Your task to perform on an android device: Search for pizza restaurants on Maps Image 0: 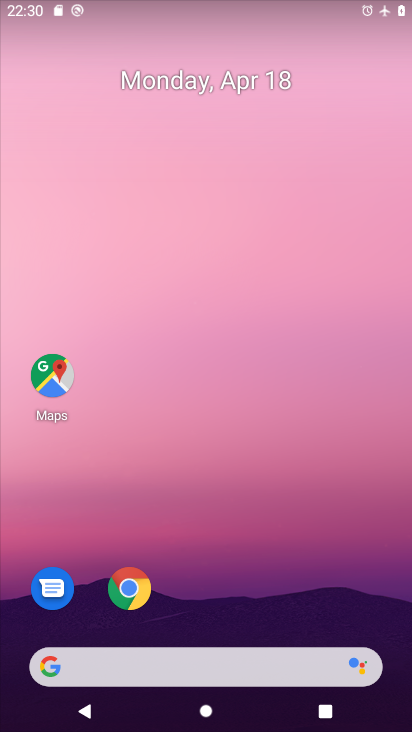
Step 0: drag from (219, 501) to (266, 51)
Your task to perform on an android device: Search for pizza restaurants on Maps Image 1: 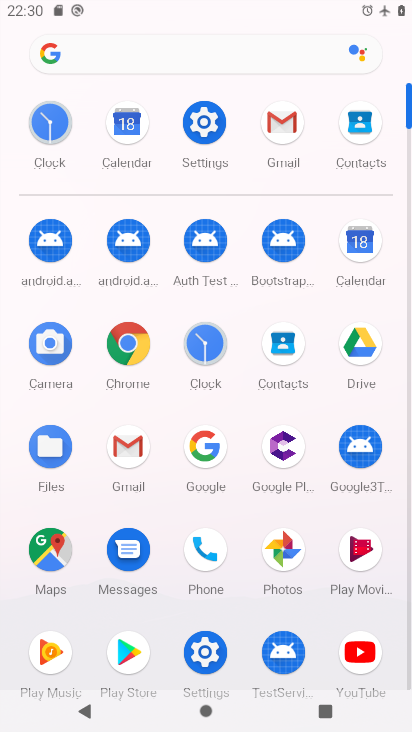
Step 1: click (55, 549)
Your task to perform on an android device: Search for pizza restaurants on Maps Image 2: 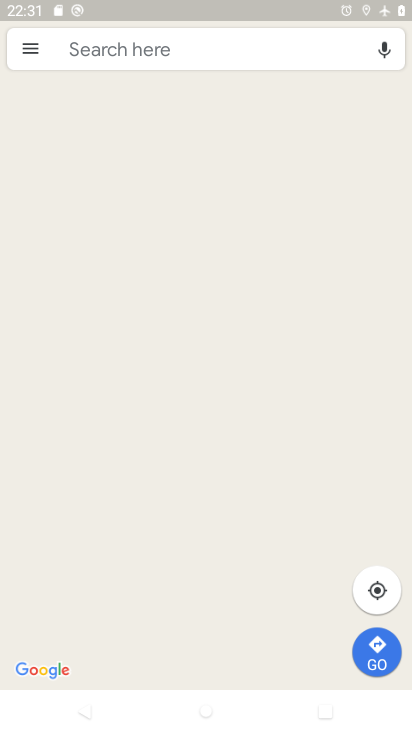
Step 2: click (248, 62)
Your task to perform on an android device: Search for pizza restaurants on Maps Image 3: 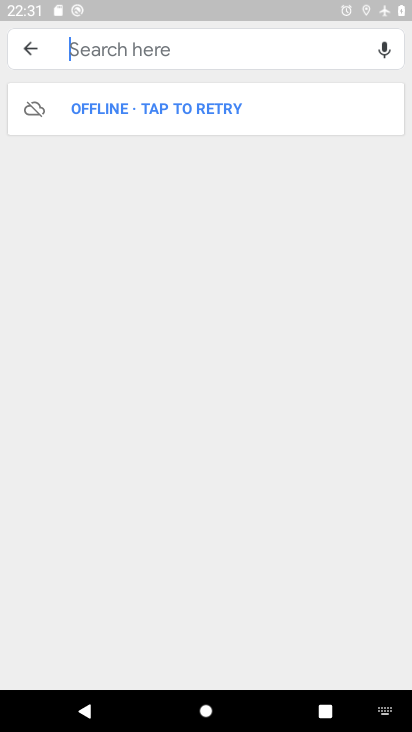
Step 3: type "pizza restaurants"
Your task to perform on an android device: Search for pizza restaurants on Maps Image 4: 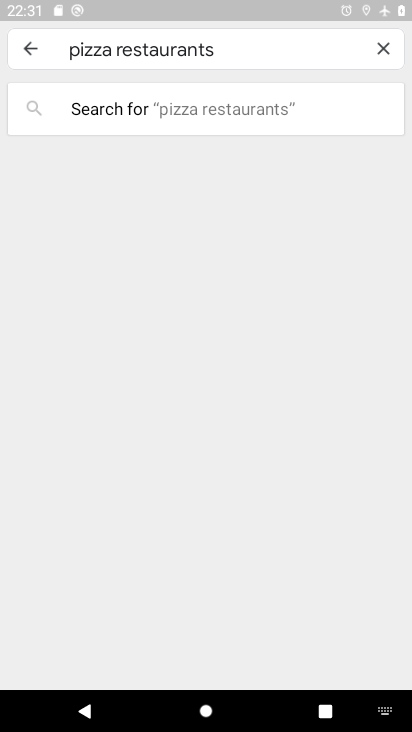
Step 4: click (155, 91)
Your task to perform on an android device: Search for pizza restaurants on Maps Image 5: 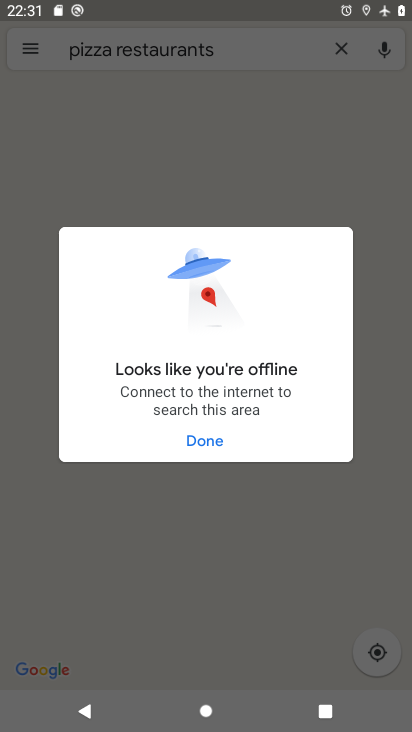
Step 5: task complete